Your task to perform on an android device: Open calendar and show me the fourth week of next month Image 0: 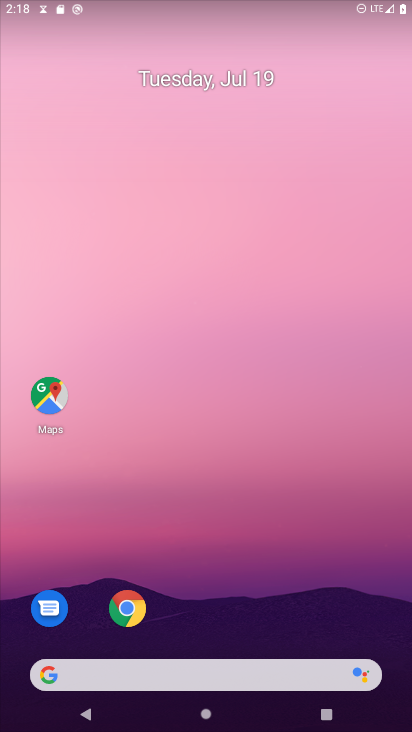
Step 0: drag from (233, 633) to (241, 70)
Your task to perform on an android device: Open calendar and show me the fourth week of next month Image 1: 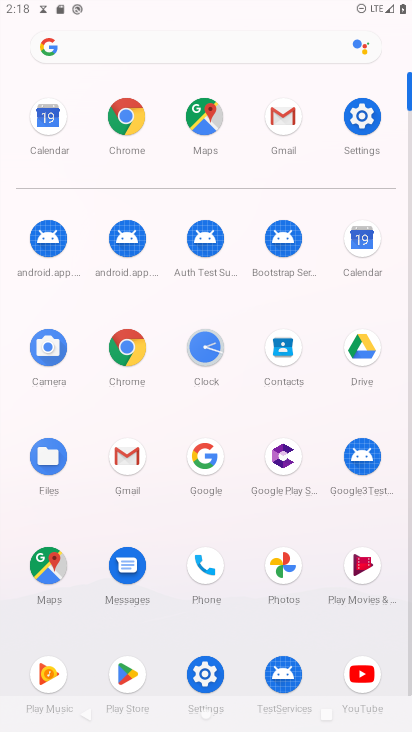
Step 1: click (356, 225)
Your task to perform on an android device: Open calendar and show me the fourth week of next month Image 2: 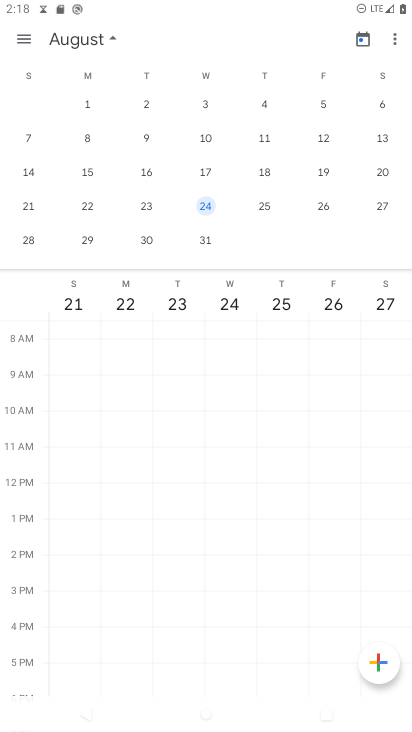
Step 2: click (202, 206)
Your task to perform on an android device: Open calendar and show me the fourth week of next month Image 3: 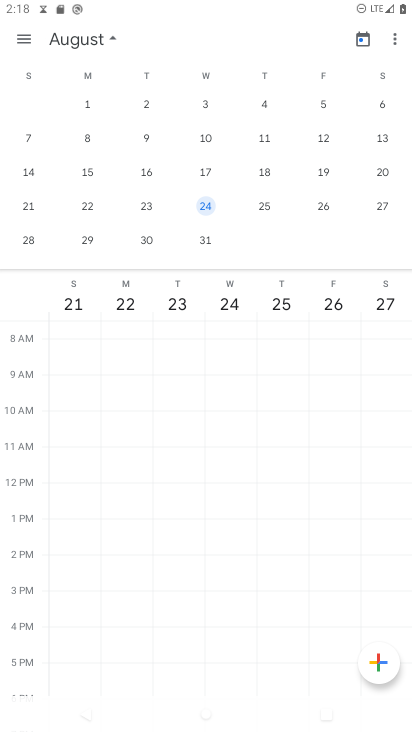
Step 3: task complete